Your task to perform on an android device: Open Yahoo.com Image 0: 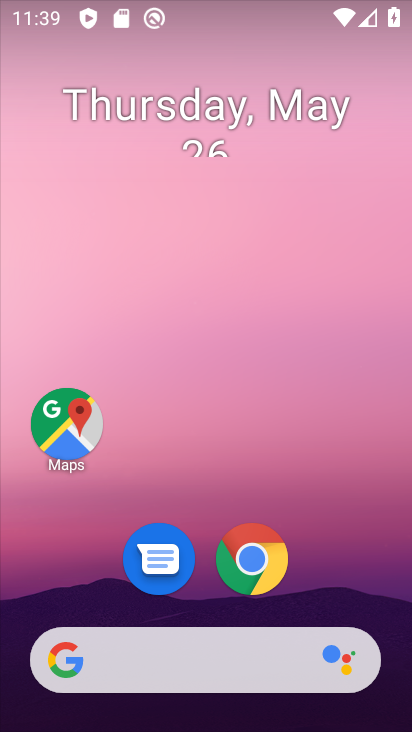
Step 0: click (246, 570)
Your task to perform on an android device: Open Yahoo.com Image 1: 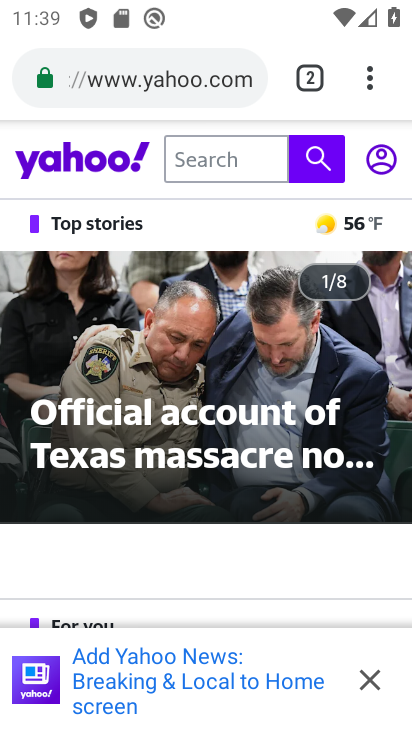
Step 1: task complete